Your task to perform on an android device: clear all cookies in the chrome app Image 0: 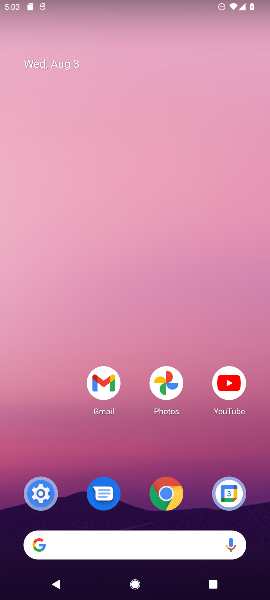
Step 0: press home button
Your task to perform on an android device: clear all cookies in the chrome app Image 1: 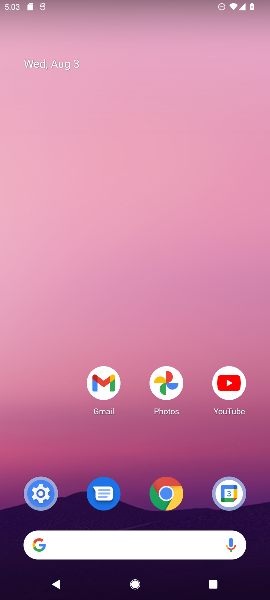
Step 1: drag from (56, 451) to (67, 194)
Your task to perform on an android device: clear all cookies in the chrome app Image 2: 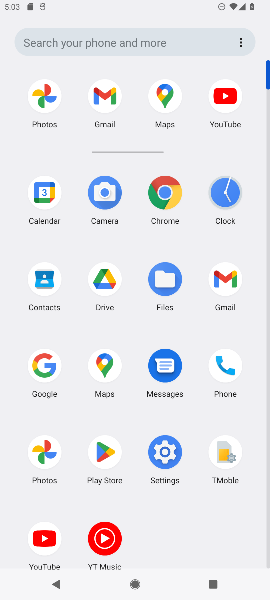
Step 2: click (172, 189)
Your task to perform on an android device: clear all cookies in the chrome app Image 3: 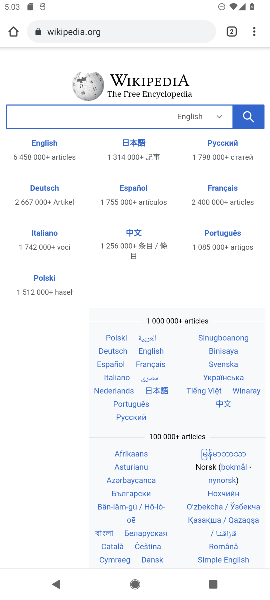
Step 3: click (253, 31)
Your task to perform on an android device: clear all cookies in the chrome app Image 4: 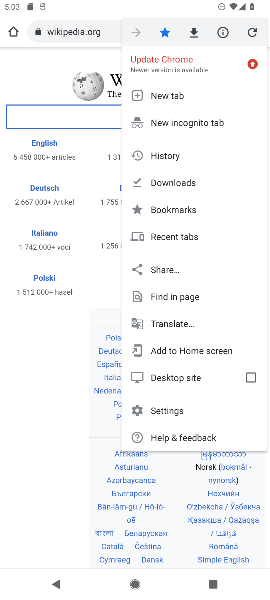
Step 4: click (176, 411)
Your task to perform on an android device: clear all cookies in the chrome app Image 5: 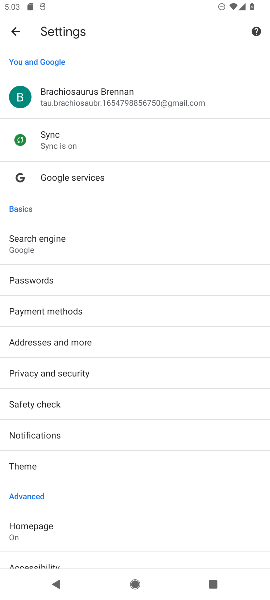
Step 5: drag from (201, 470) to (208, 416)
Your task to perform on an android device: clear all cookies in the chrome app Image 6: 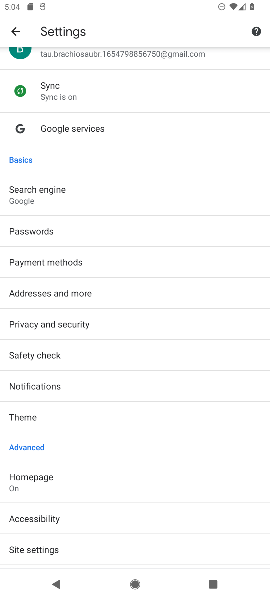
Step 6: drag from (206, 488) to (202, 402)
Your task to perform on an android device: clear all cookies in the chrome app Image 7: 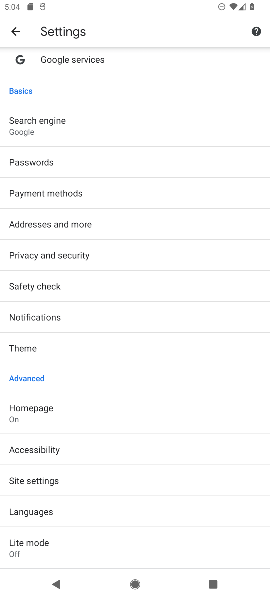
Step 7: drag from (201, 458) to (204, 376)
Your task to perform on an android device: clear all cookies in the chrome app Image 8: 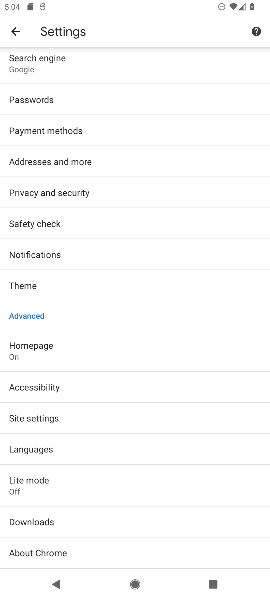
Step 8: drag from (194, 481) to (207, 357)
Your task to perform on an android device: clear all cookies in the chrome app Image 9: 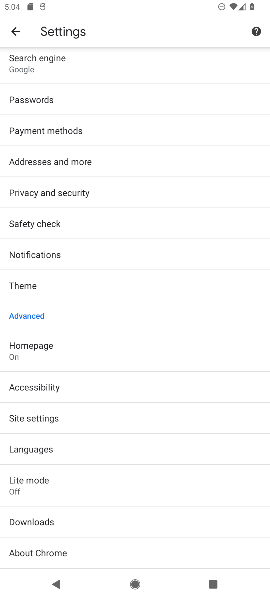
Step 9: drag from (208, 252) to (208, 312)
Your task to perform on an android device: clear all cookies in the chrome app Image 10: 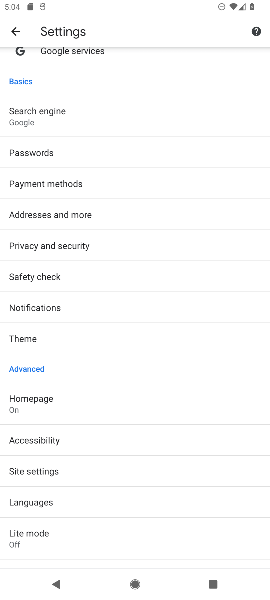
Step 10: drag from (171, 186) to (169, 323)
Your task to perform on an android device: clear all cookies in the chrome app Image 11: 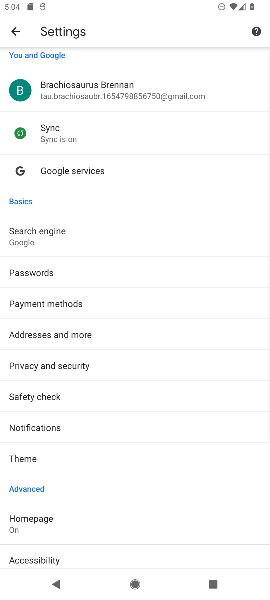
Step 11: drag from (167, 414) to (167, 333)
Your task to perform on an android device: clear all cookies in the chrome app Image 12: 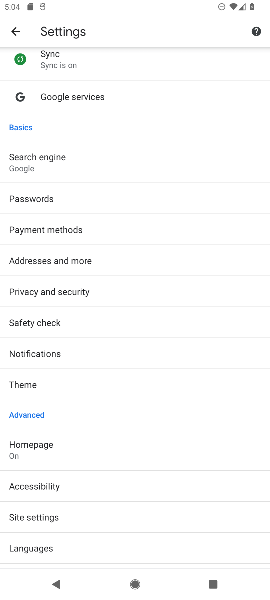
Step 12: drag from (157, 437) to (167, 334)
Your task to perform on an android device: clear all cookies in the chrome app Image 13: 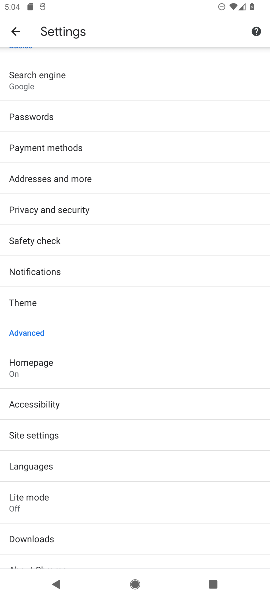
Step 13: drag from (151, 461) to (154, 341)
Your task to perform on an android device: clear all cookies in the chrome app Image 14: 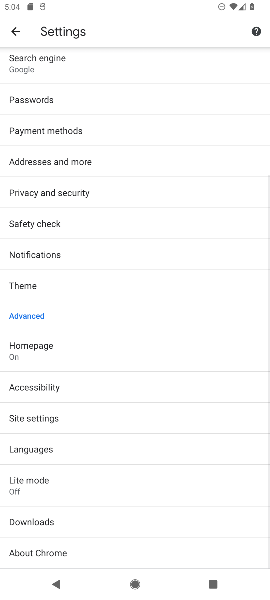
Step 14: drag from (169, 266) to (172, 356)
Your task to perform on an android device: clear all cookies in the chrome app Image 15: 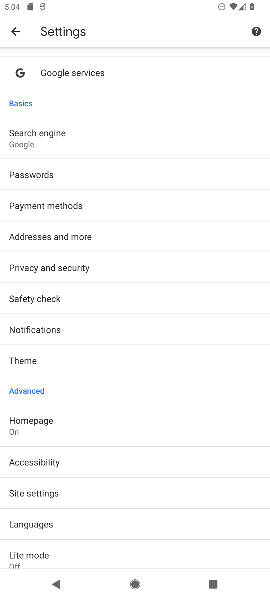
Step 15: click (133, 266)
Your task to perform on an android device: clear all cookies in the chrome app Image 16: 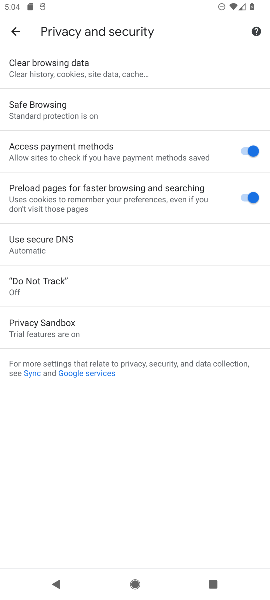
Step 16: drag from (145, 374) to (138, 187)
Your task to perform on an android device: clear all cookies in the chrome app Image 17: 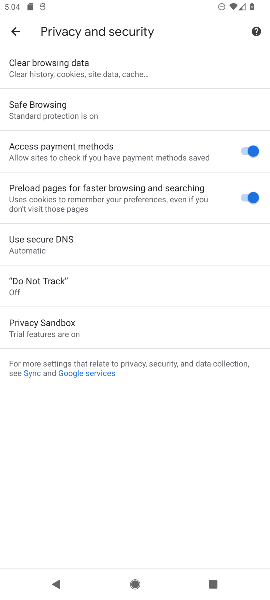
Step 17: click (150, 65)
Your task to perform on an android device: clear all cookies in the chrome app Image 18: 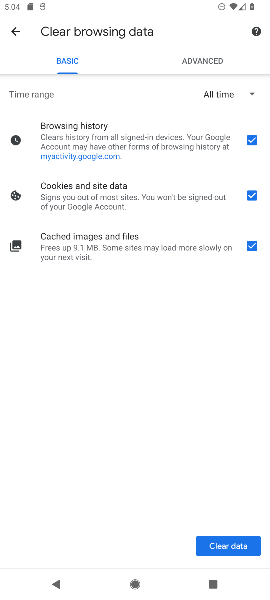
Step 18: click (220, 546)
Your task to perform on an android device: clear all cookies in the chrome app Image 19: 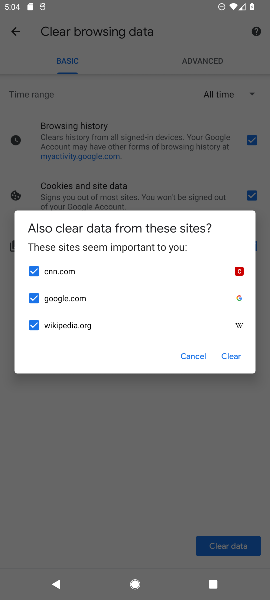
Step 19: click (232, 358)
Your task to perform on an android device: clear all cookies in the chrome app Image 20: 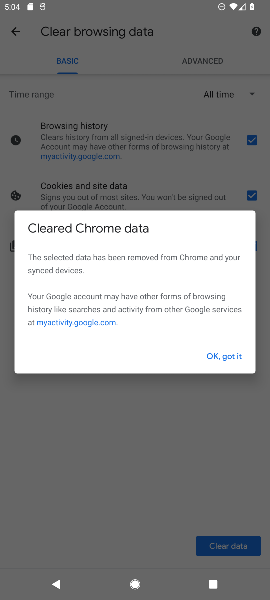
Step 20: click (233, 355)
Your task to perform on an android device: clear all cookies in the chrome app Image 21: 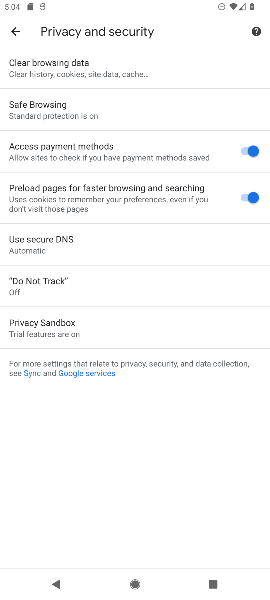
Step 21: task complete